Your task to perform on an android device: show emergency info Image 0: 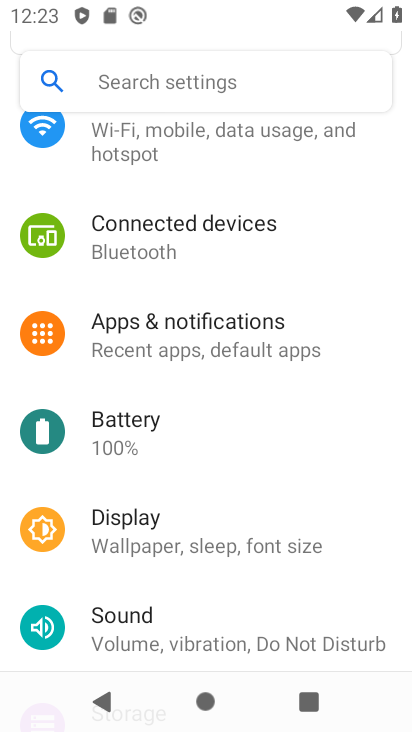
Step 0: press home button
Your task to perform on an android device: show emergency info Image 1: 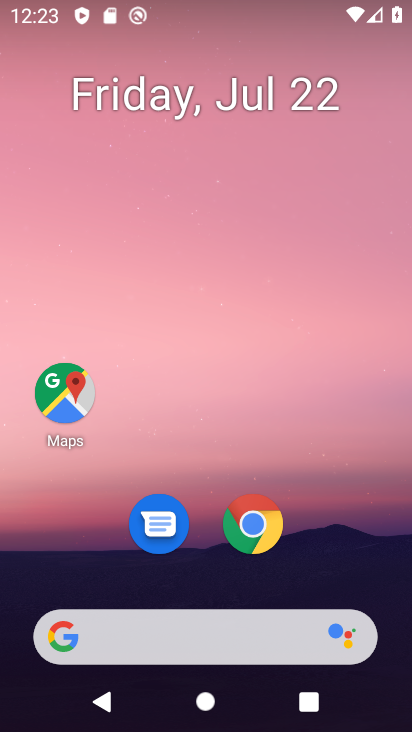
Step 1: drag from (216, 634) to (358, 96)
Your task to perform on an android device: show emergency info Image 2: 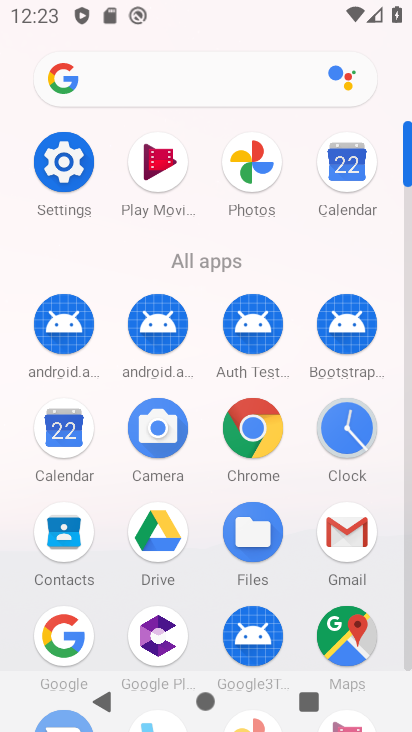
Step 2: click (67, 158)
Your task to perform on an android device: show emergency info Image 3: 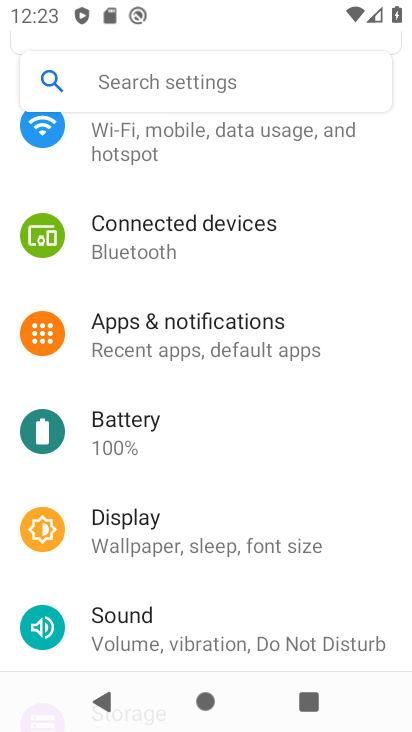
Step 3: drag from (216, 600) to (327, 161)
Your task to perform on an android device: show emergency info Image 4: 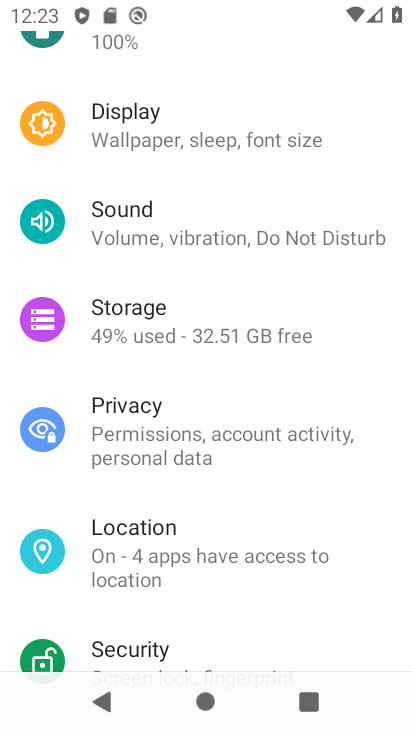
Step 4: drag from (282, 604) to (331, 191)
Your task to perform on an android device: show emergency info Image 5: 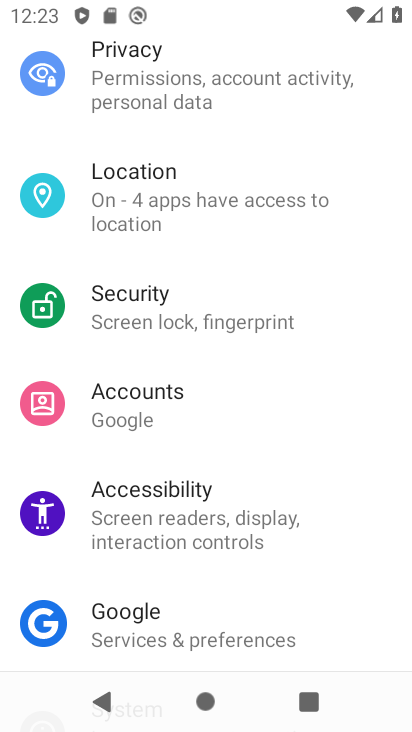
Step 5: drag from (274, 566) to (332, 120)
Your task to perform on an android device: show emergency info Image 6: 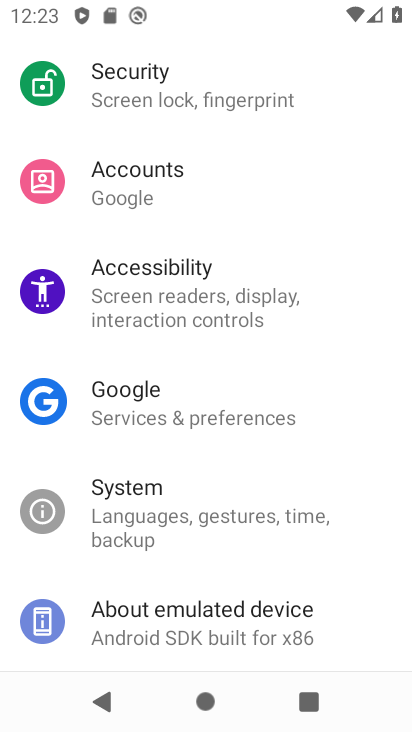
Step 6: click (175, 608)
Your task to perform on an android device: show emergency info Image 7: 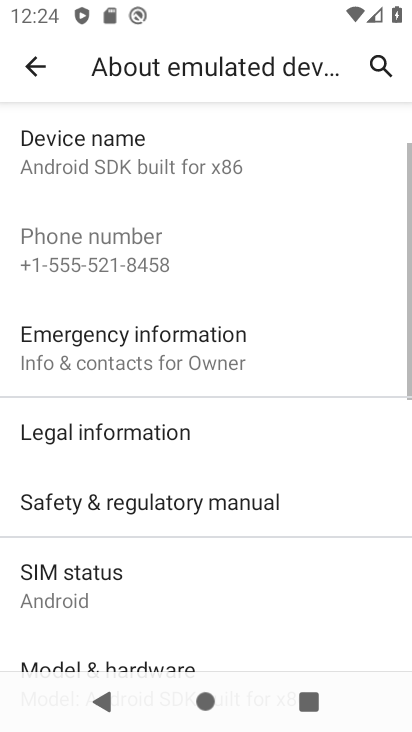
Step 7: click (134, 344)
Your task to perform on an android device: show emergency info Image 8: 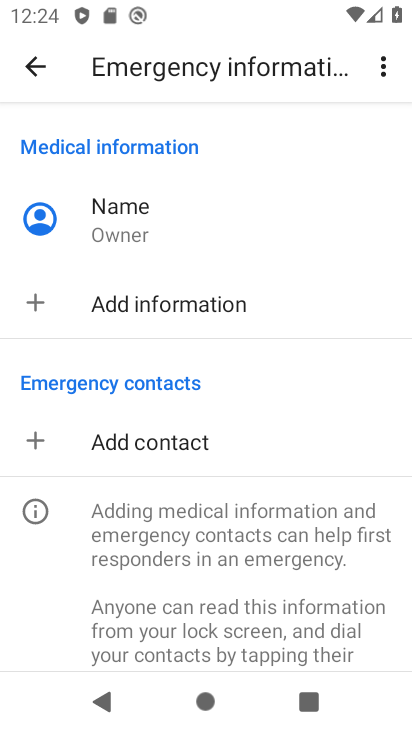
Step 8: task complete